Your task to perform on an android device: change keyboard looks Image 0: 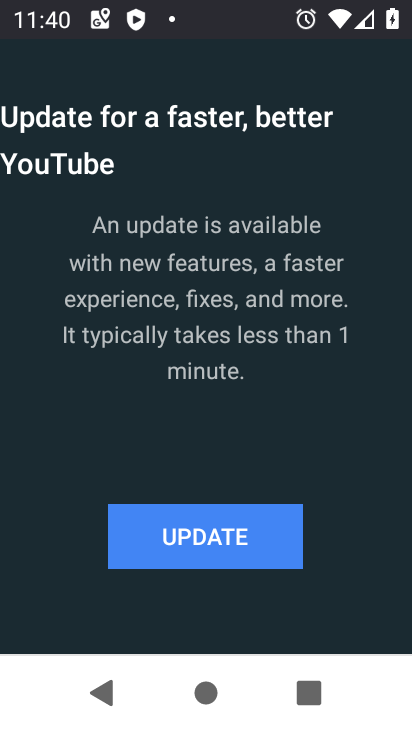
Step 0: press home button
Your task to perform on an android device: change keyboard looks Image 1: 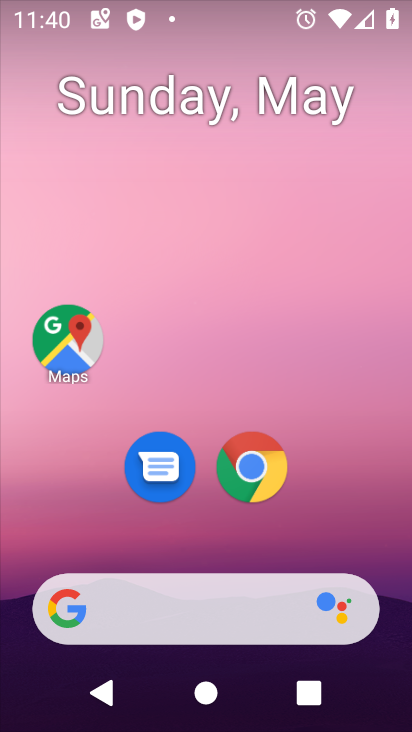
Step 1: drag from (344, 551) to (364, 2)
Your task to perform on an android device: change keyboard looks Image 2: 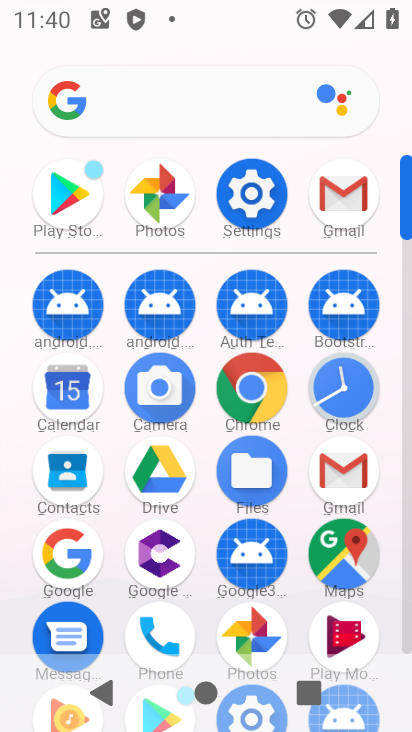
Step 2: click (250, 191)
Your task to perform on an android device: change keyboard looks Image 3: 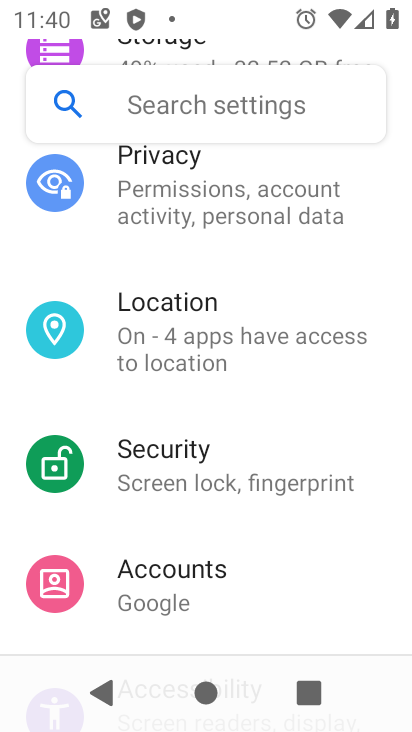
Step 3: drag from (282, 558) to (230, 55)
Your task to perform on an android device: change keyboard looks Image 4: 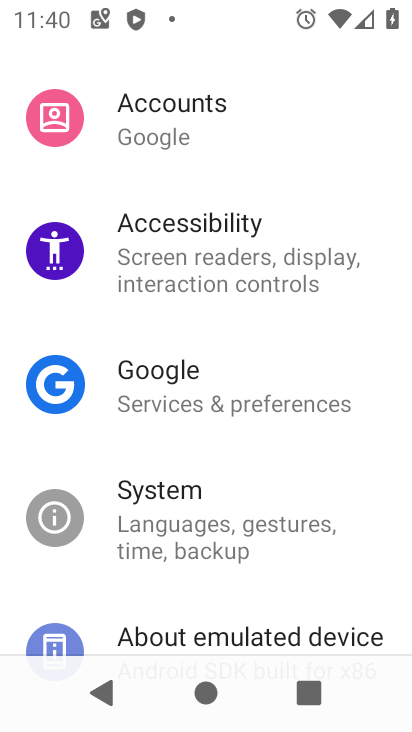
Step 4: drag from (241, 530) to (227, 167)
Your task to perform on an android device: change keyboard looks Image 5: 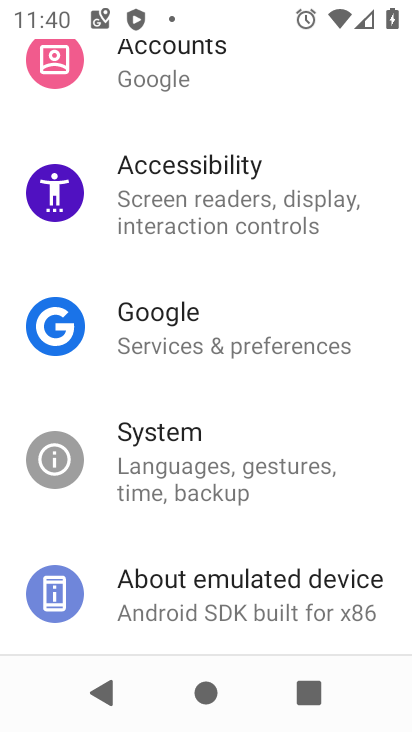
Step 5: click (150, 455)
Your task to perform on an android device: change keyboard looks Image 6: 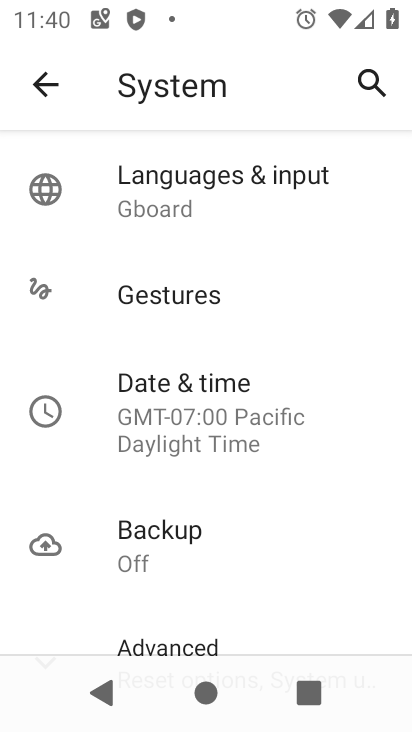
Step 6: click (154, 203)
Your task to perform on an android device: change keyboard looks Image 7: 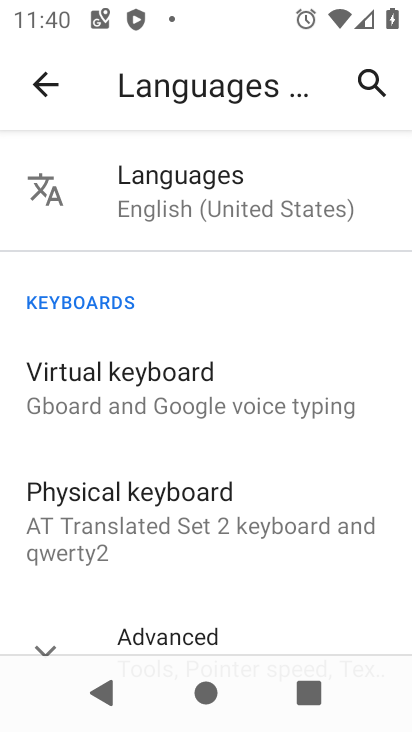
Step 7: click (117, 380)
Your task to perform on an android device: change keyboard looks Image 8: 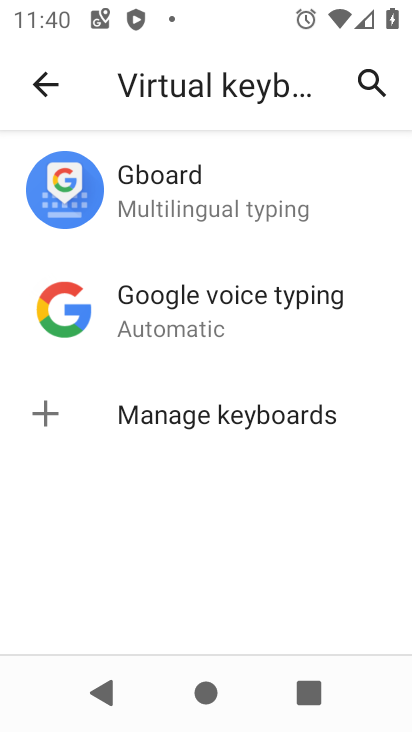
Step 8: click (143, 196)
Your task to perform on an android device: change keyboard looks Image 9: 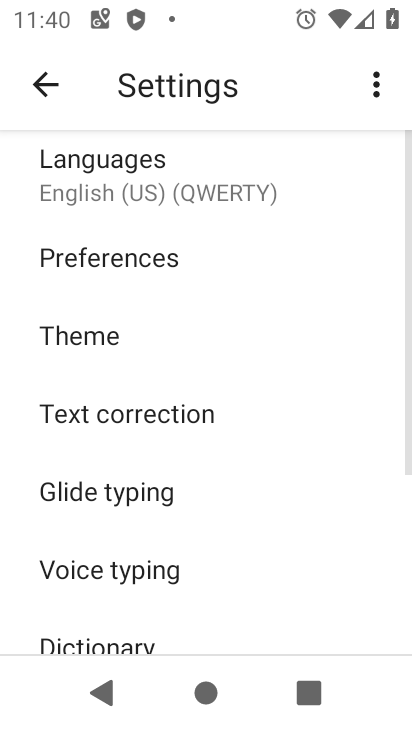
Step 9: click (71, 337)
Your task to perform on an android device: change keyboard looks Image 10: 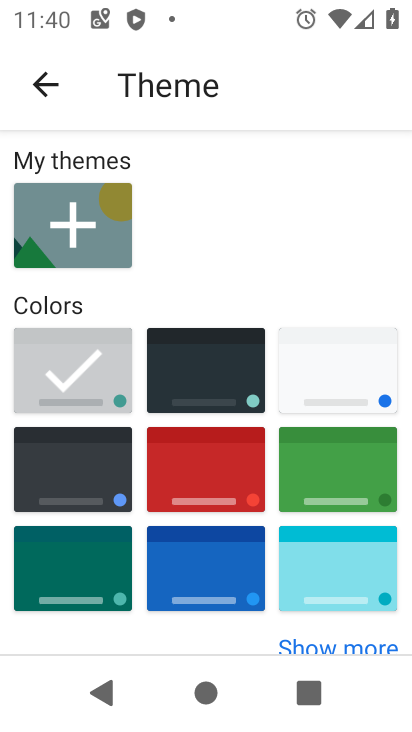
Step 10: click (181, 388)
Your task to perform on an android device: change keyboard looks Image 11: 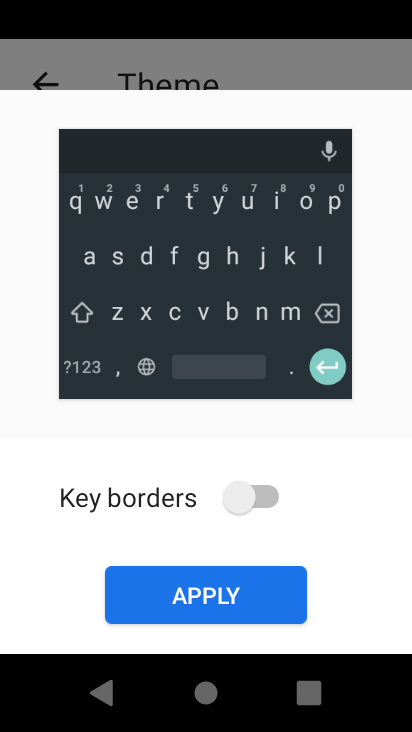
Step 11: click (244, 509)
Your task to perform on an android device: change keyboard looks Image 12: 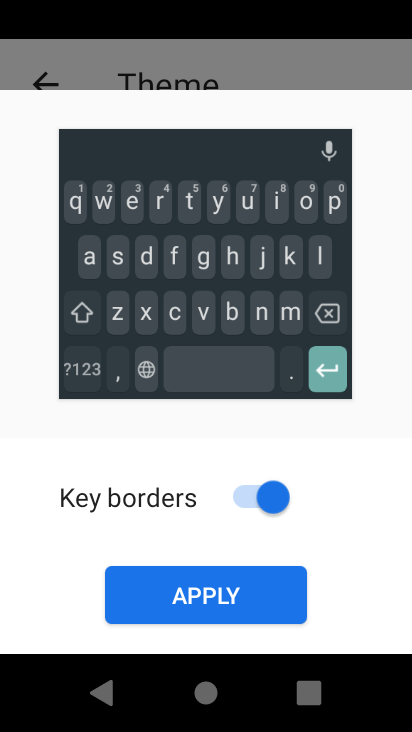
Step 12: click (226, 598)
Your task to perform on an android device: change keyboard looks Image 13: 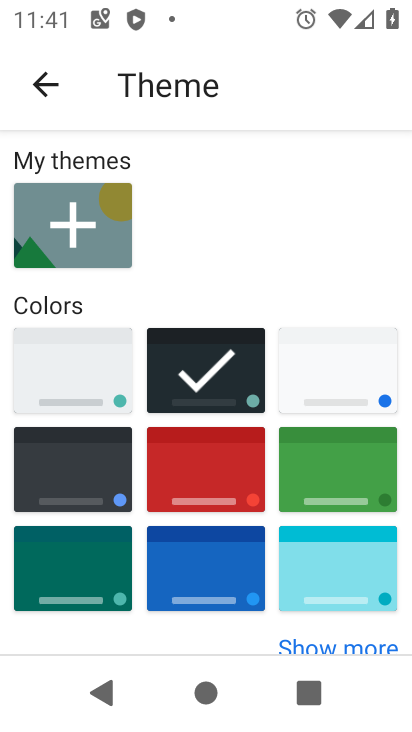
Step 13: task complete